Your task to perform on an android device: open app "TextNow: Call + Text Unlimited" Image 0: 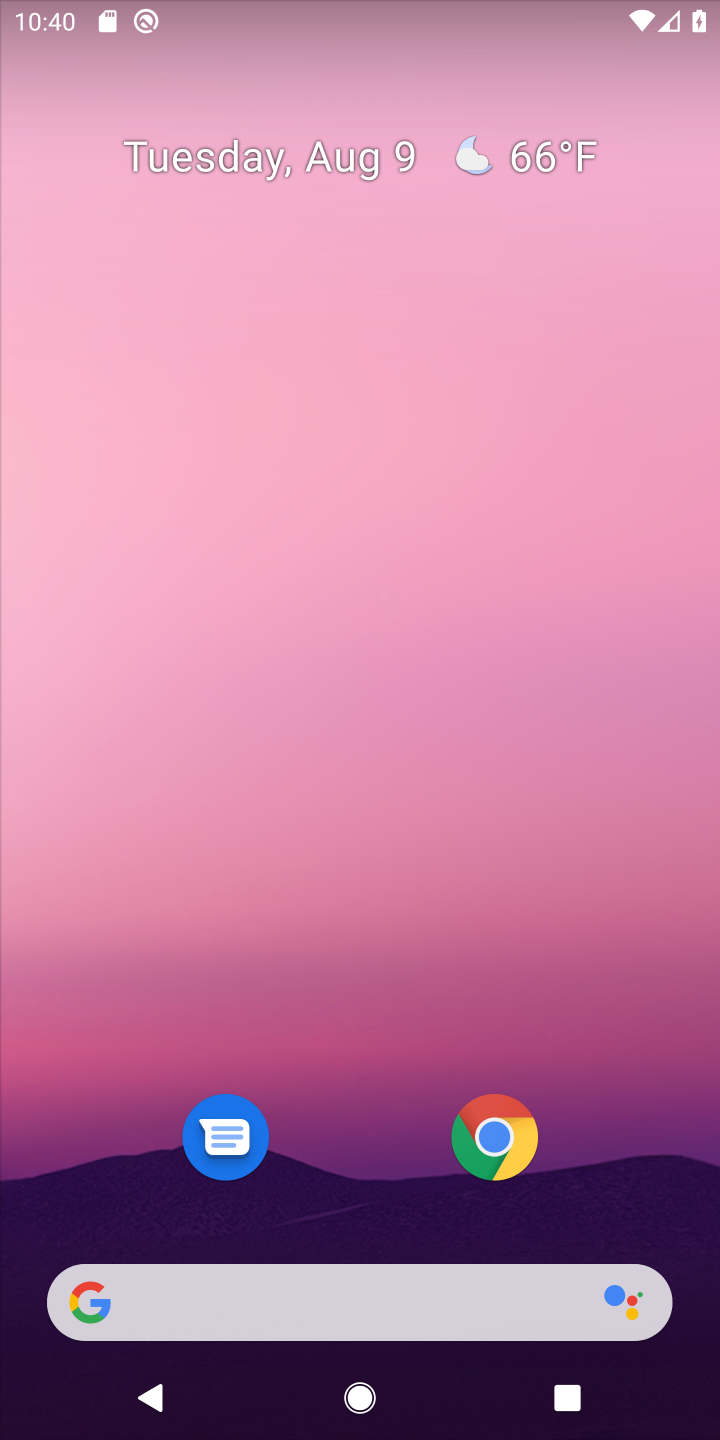
Step 0: drag from (381, 887) to (392, 455)
Your task to perform on an android device: open app "TextNow: Call + Text Unlimited" Image 1: 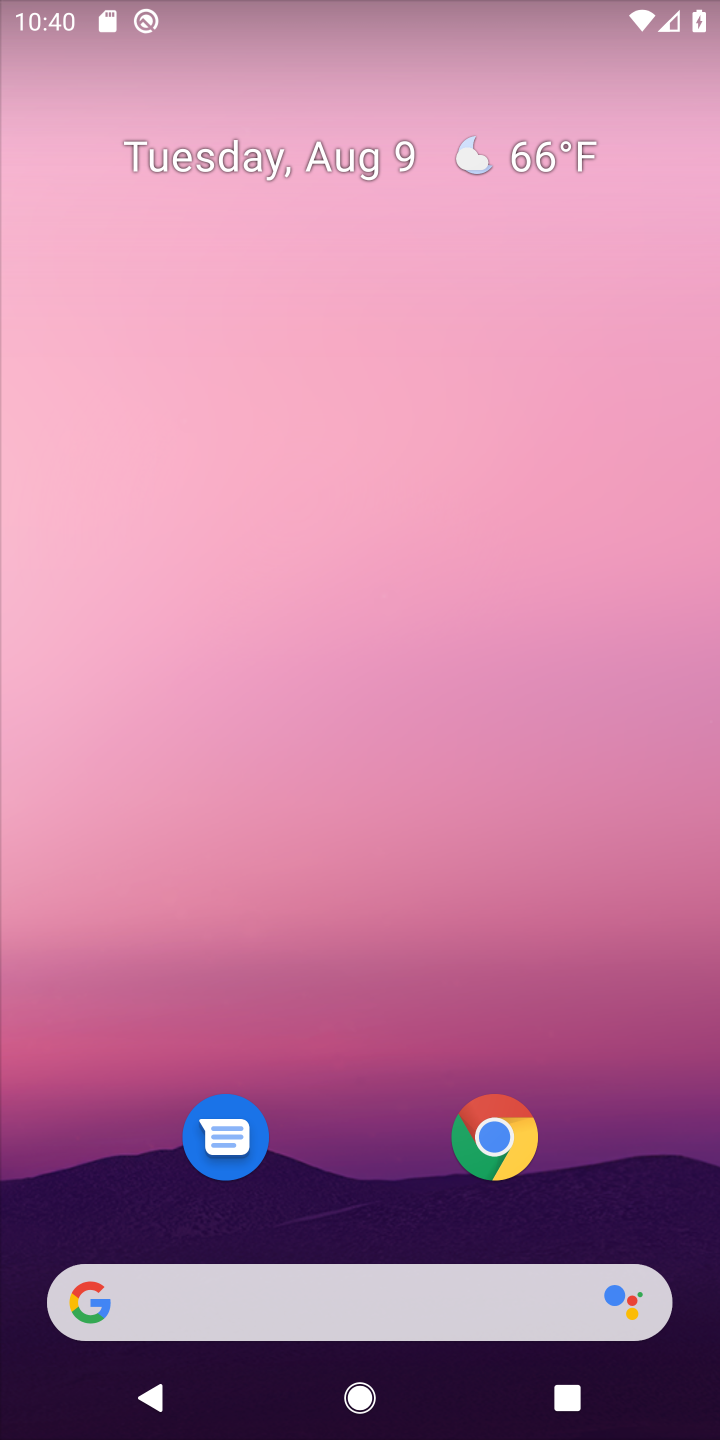
Step 1: drag from (363, 937) to (363, 356)
Your task to perform on an android device: open app "TextNow: Call + Text Unlimited" Image 2: 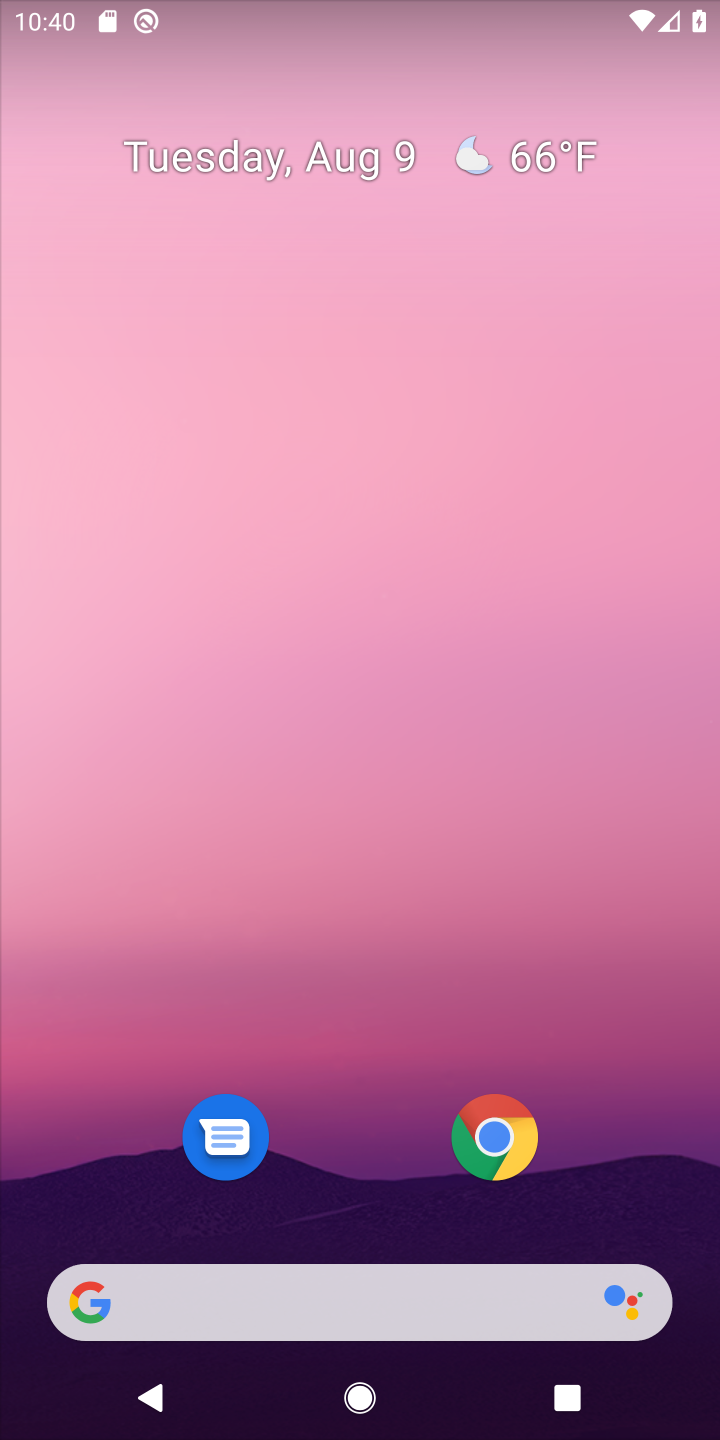
Step 2: drag from (349, 1201) to (370, 342)
Your task to perform on an android device: open app "TextNow: Call + Text Unlimited" Image 3: 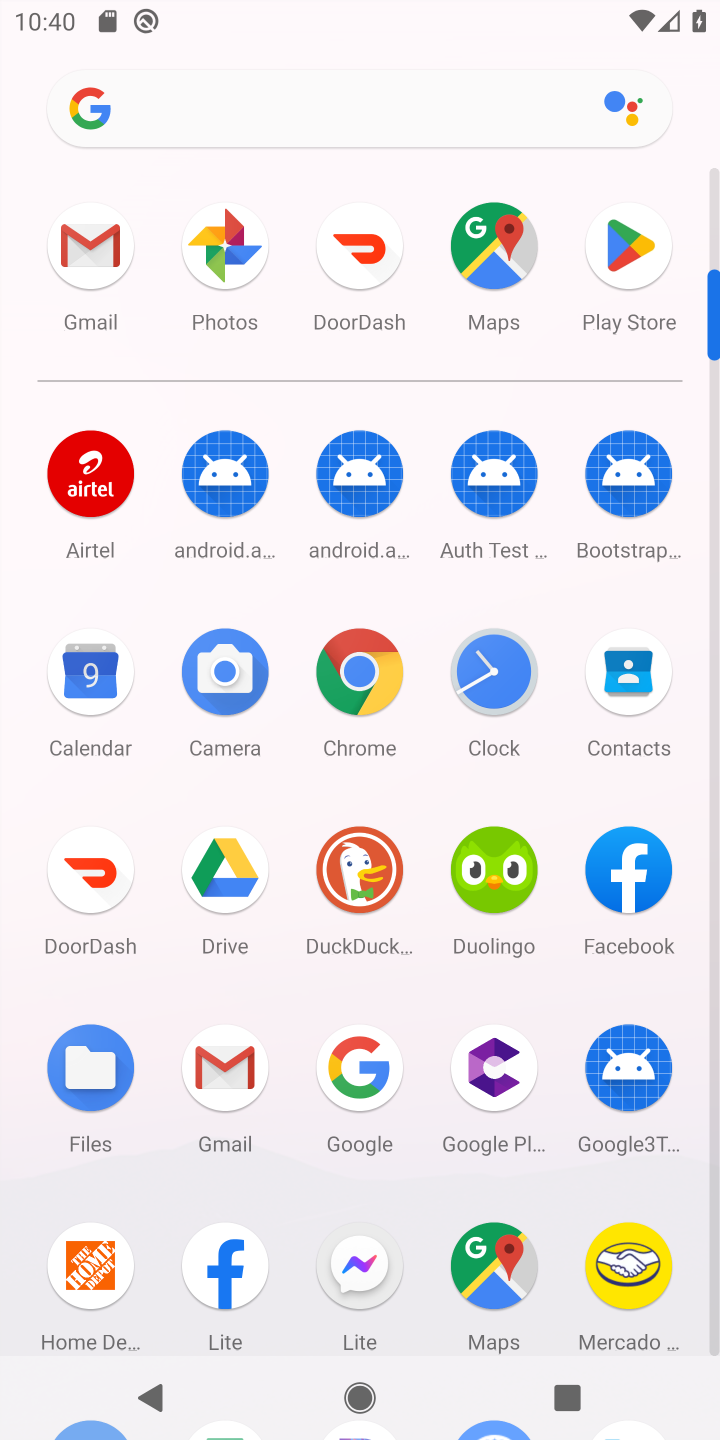
Step 3: click (622, 268)
Your task to perform on an android device: open app "TextNow: Call + Text Unlimited" Image 4: 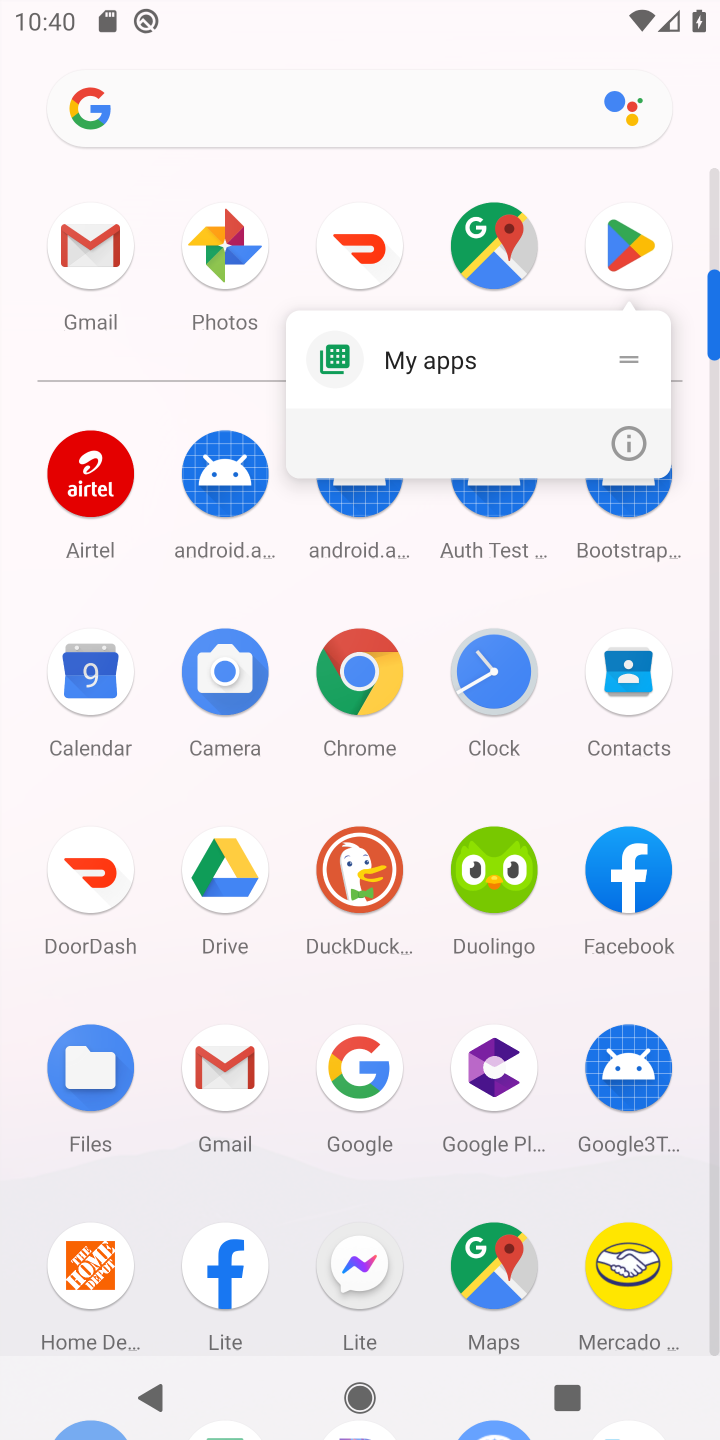
Step 4: click (629, 244)
Your task to perform on an android device: open app "TextNow: Call + Text Unlimited" Image 5: 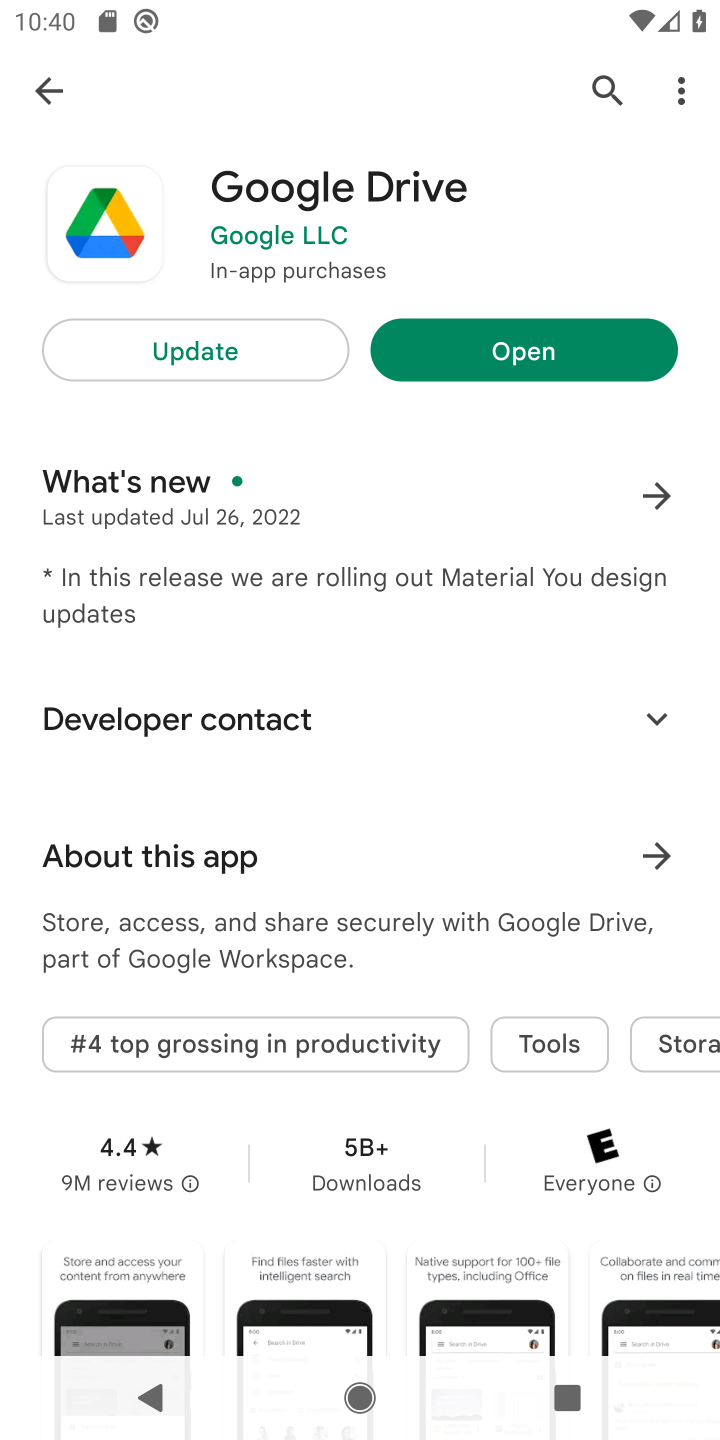
Step 5: click (606, 92)
Your task to perform on an android device: open app "TextNow: Call + Text Unlimited" Image 6: 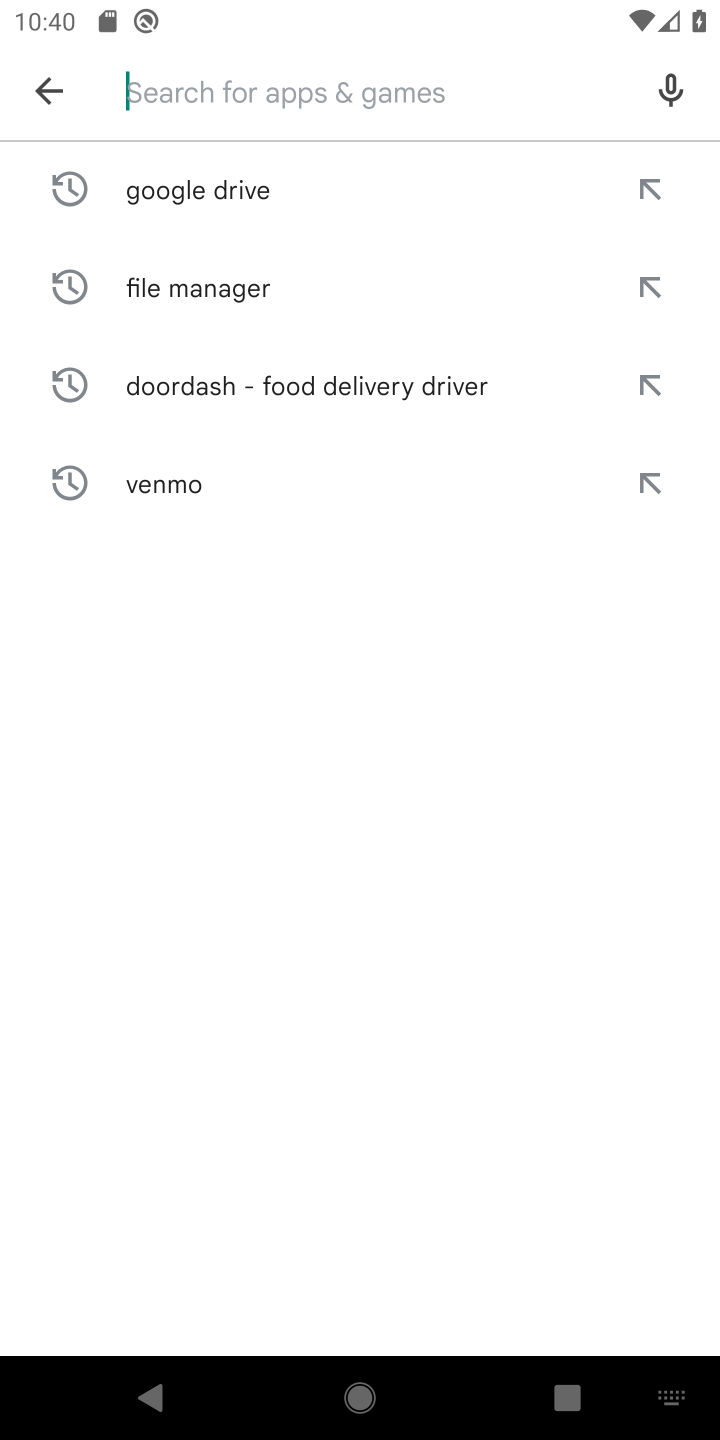
Step 6: type "TextNow: Call + Text Unlimited"
Your task to perform on an android device: open app "TextNow: Call + Text Unlimited" Image 7: 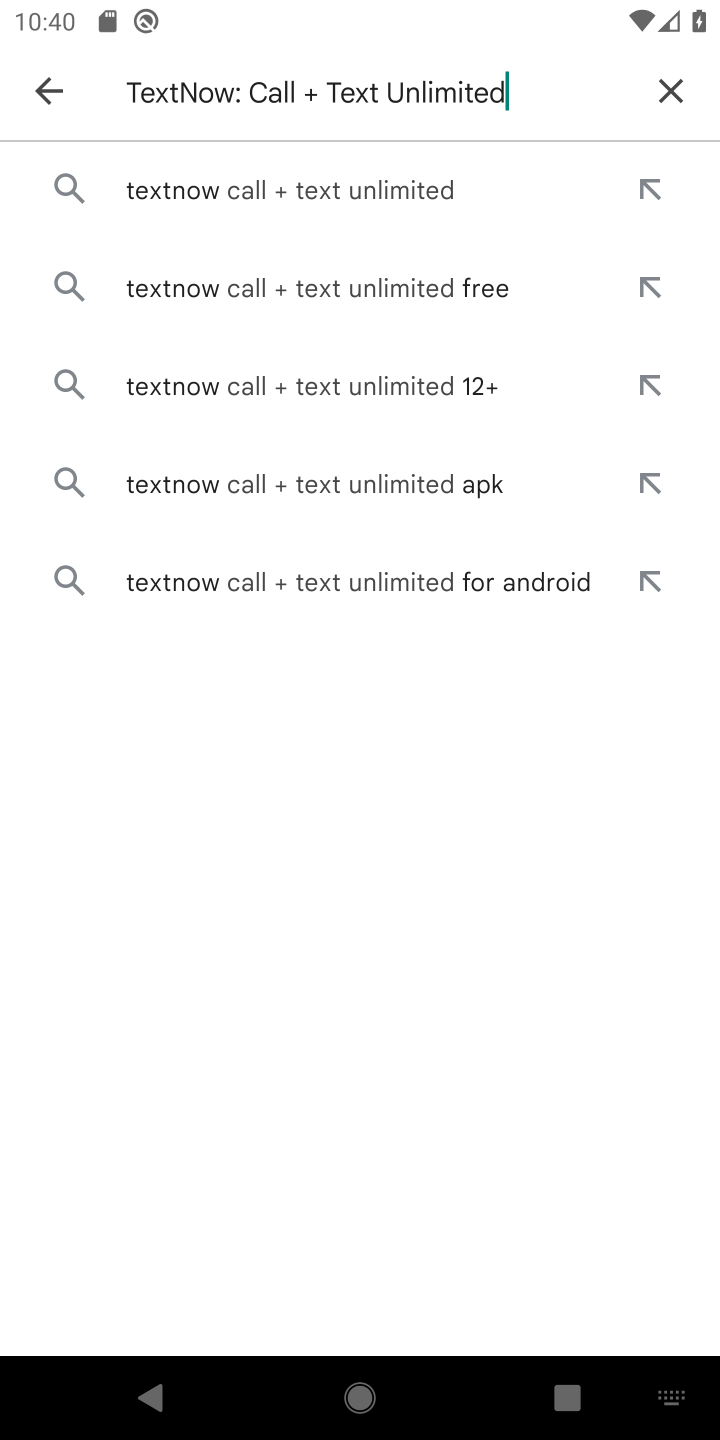
Step 7: type ""
Your task to perform on an android device: open app "TextNow: Call + Text Unlimited" Image 8: 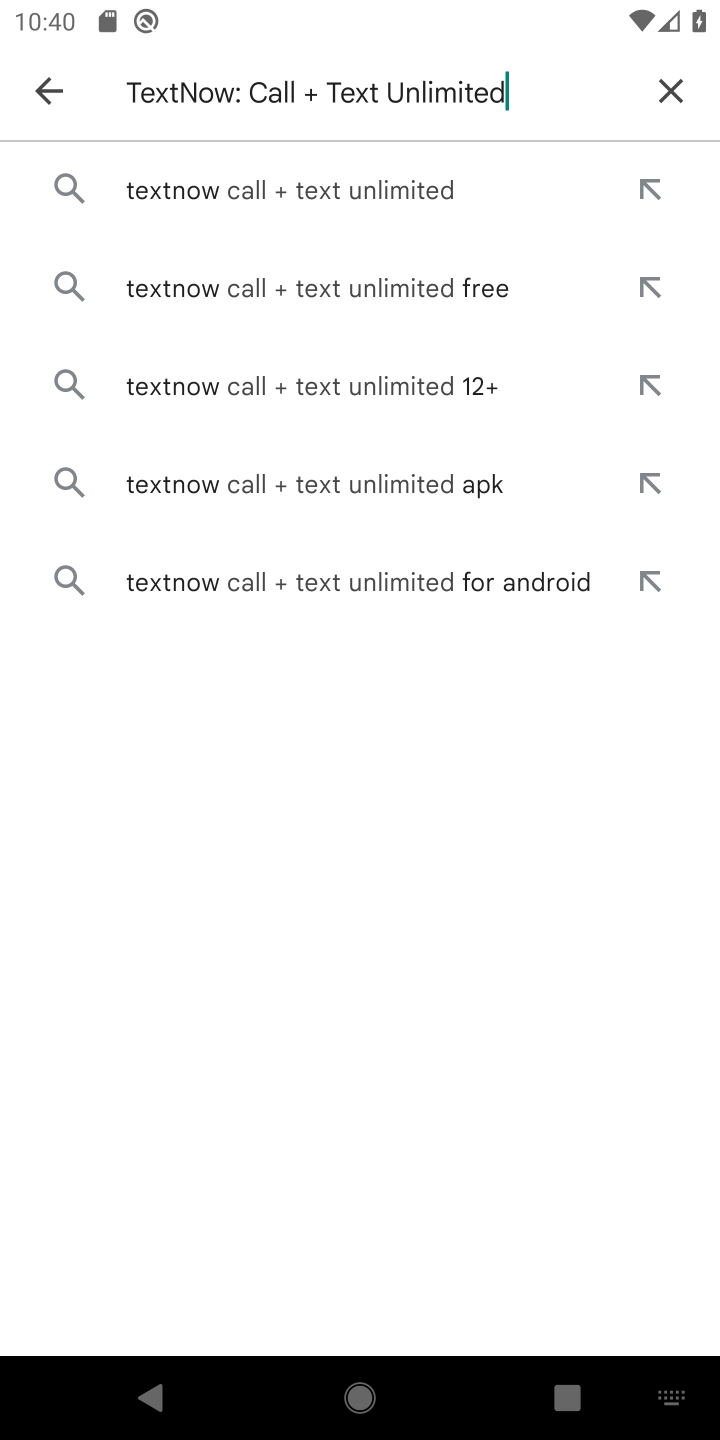
Step 8: click (322, 72)
Your task to perform on an android device: open app "TextNow: Call + Text Unlimited" Image 9: 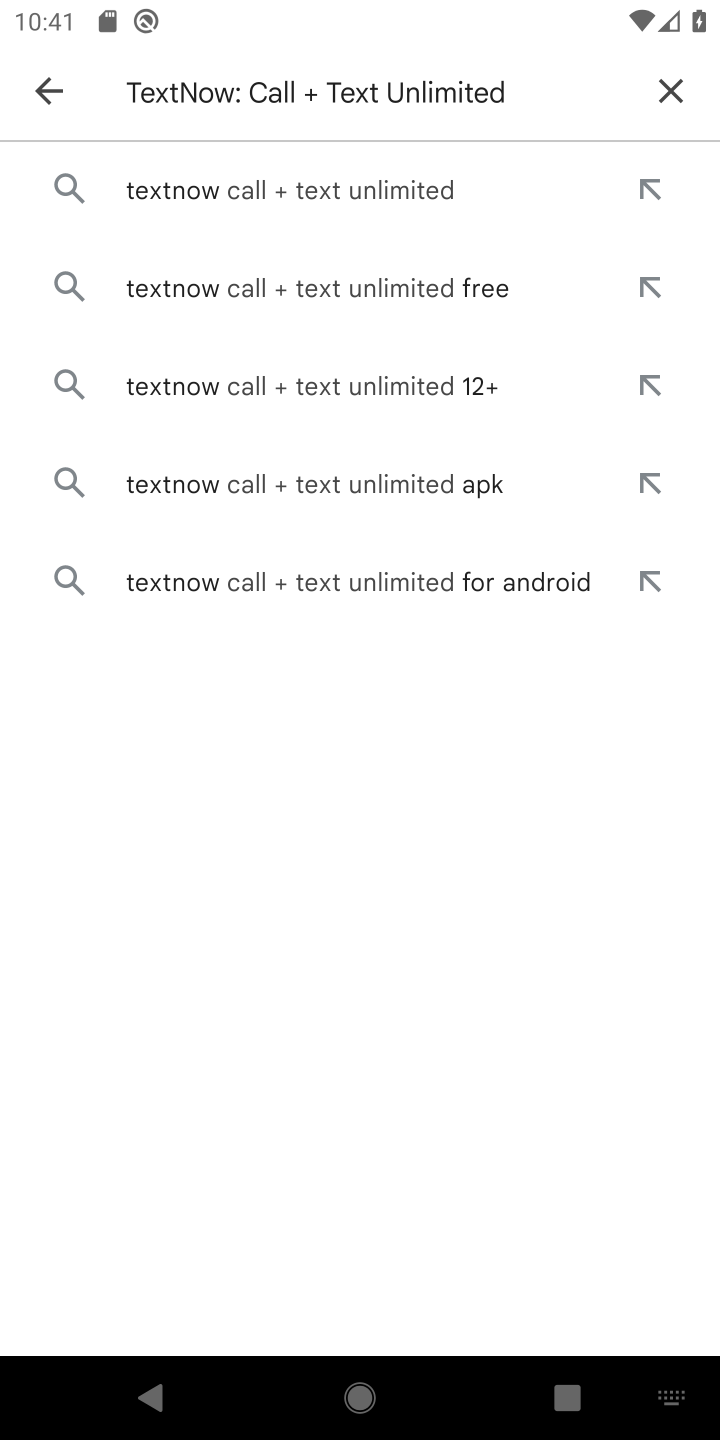
Step 9: click (388, 188)
Your task to perform on an android device: open app "TextNow: Call + Text Unlimited" Image 10: 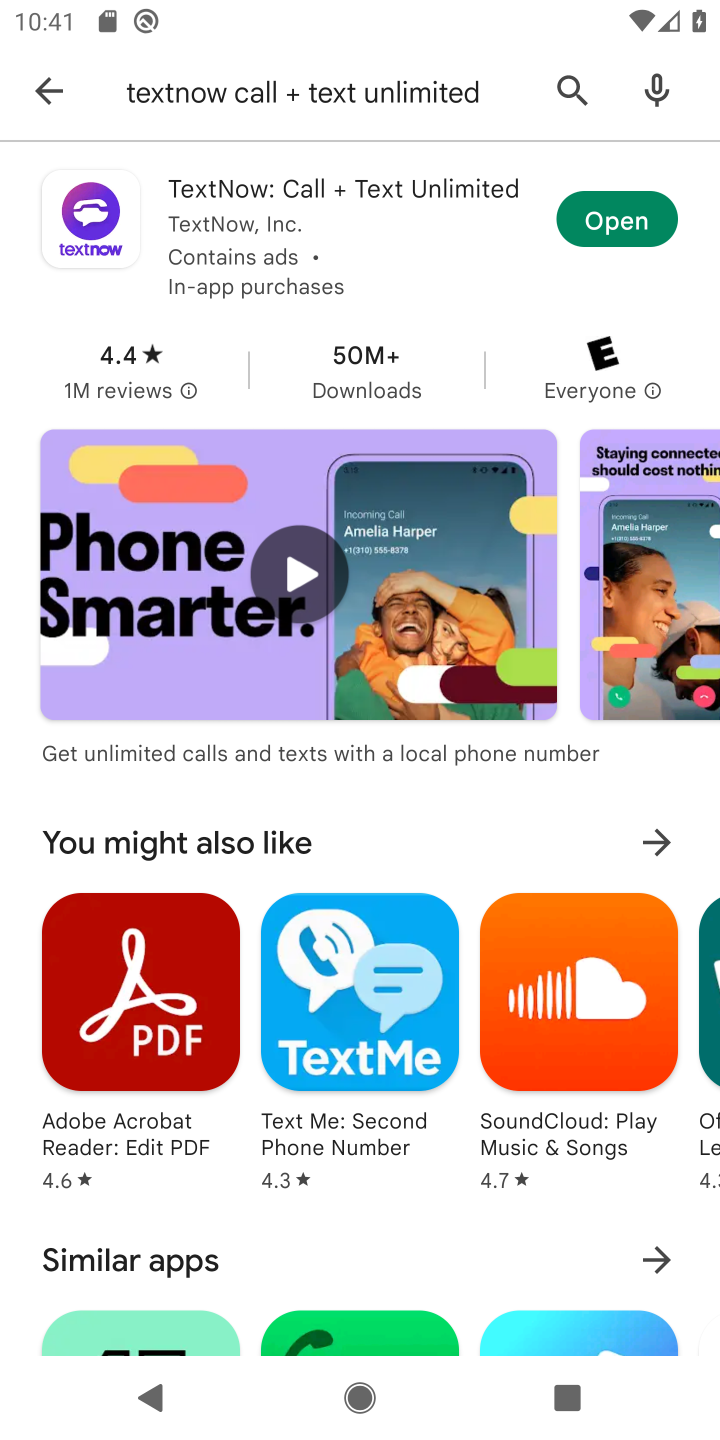
Step 10: click (656, 223)
Your task to perform on an android device: open app "TextNow: Call + Text Unlimited" Image 11: 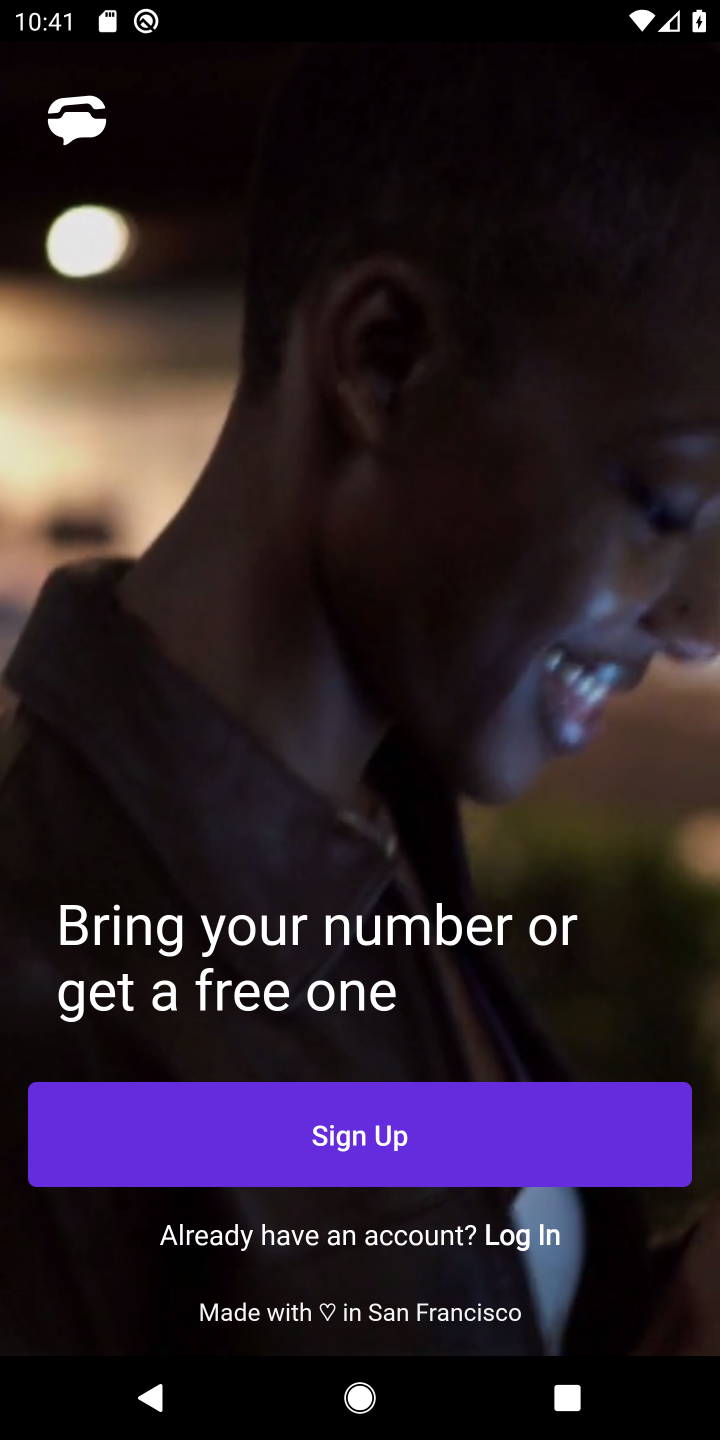
Step 11: task complete